Your task to perform on an android device: Open the phone app and click the voicemail tab. Image 0: 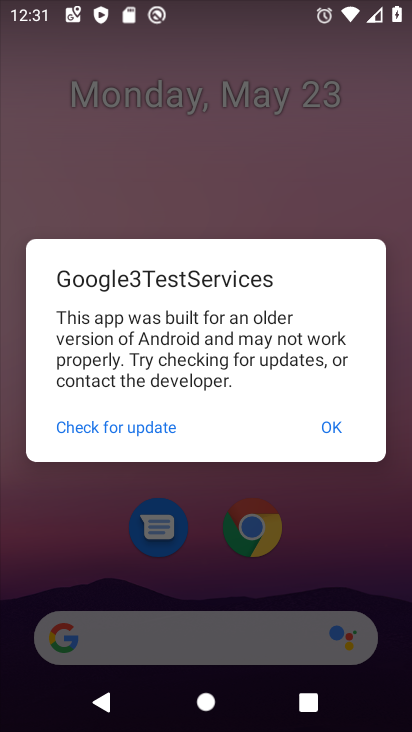
Step 0: press home button
Your task to perform on an android device: Open the phone app and click the voicemail tab. Image 1: 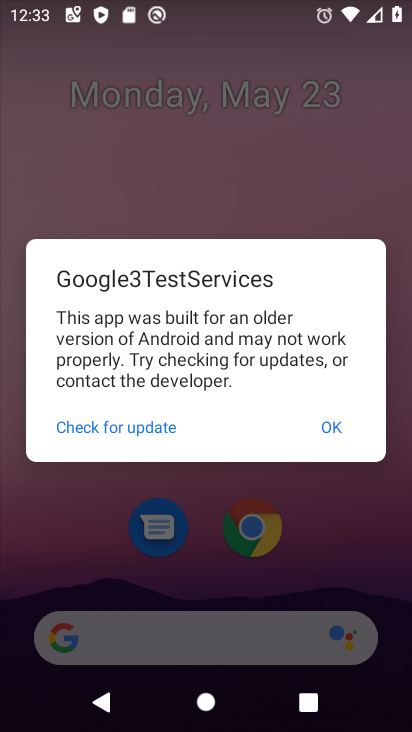
Step 1: press home button
Your task to perform on an android device: Open the phone app and click the voicemail tab. Image 2: 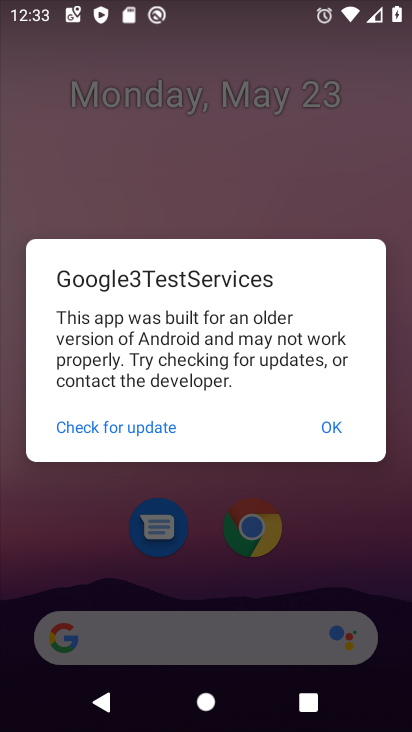
Step 2: click (327, 431)
Your task to perform on an android device: Open the phone app and click the voicemail tab. Image 3: 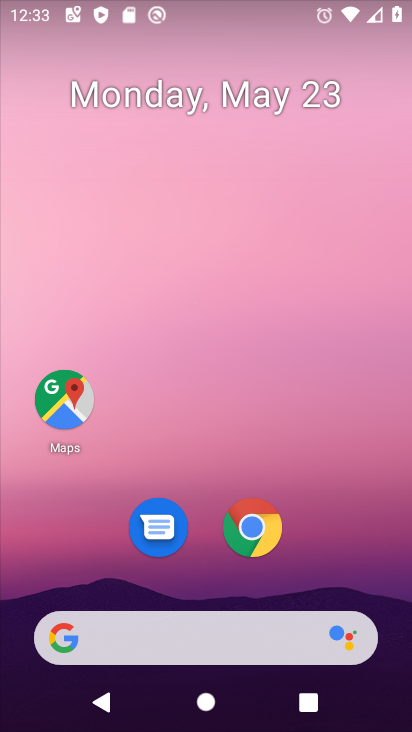
Step 3: drag from (304, 561) to (283, 217)
Your task to perform on an android device: Open the phone app and click the voicemail tab. Image 4: 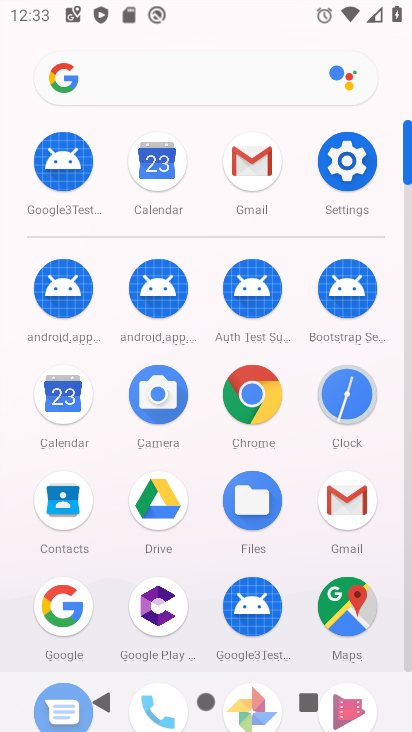
Step 4: click (410, 651)
Your task to perform on an android device: Open the phone app and click the voicemail tab. Image 5: 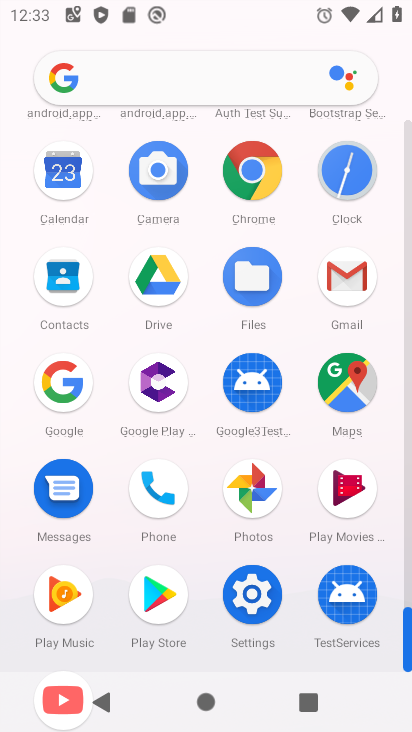
Step 5: click (180, 466)
Your task to perform on an android device: Open the phone app and click the voicemail tab. Image 6: 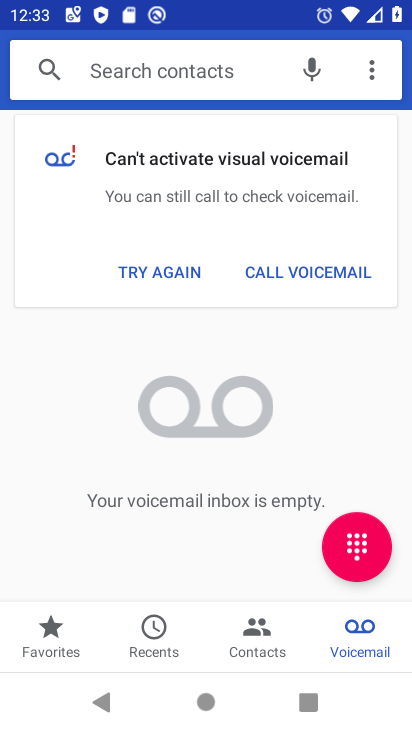
Step 6: task complete